Your task to perform on an android device: turn off javascript in the chrome app Image 0: 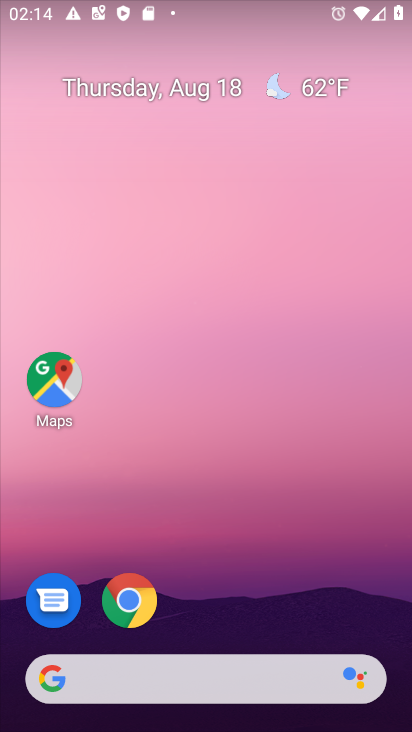
Step 0: press home button
Your task to perform on an android device: turn off javascript in the chrome app Image 1: 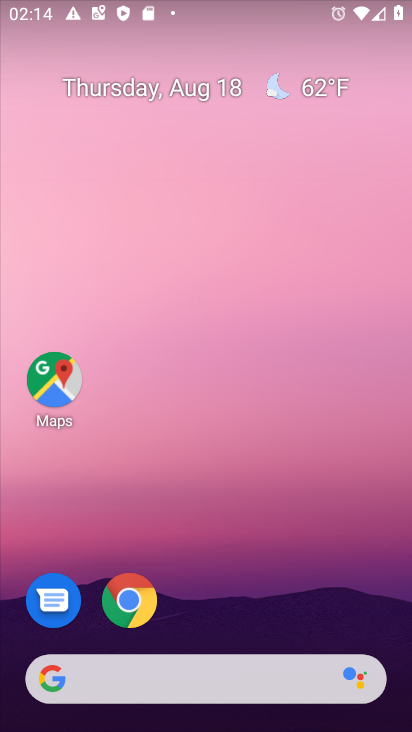
Step 1: click (118, 607)
Your task to perform on an android device: turn off javascript in the chrome app Image 2: 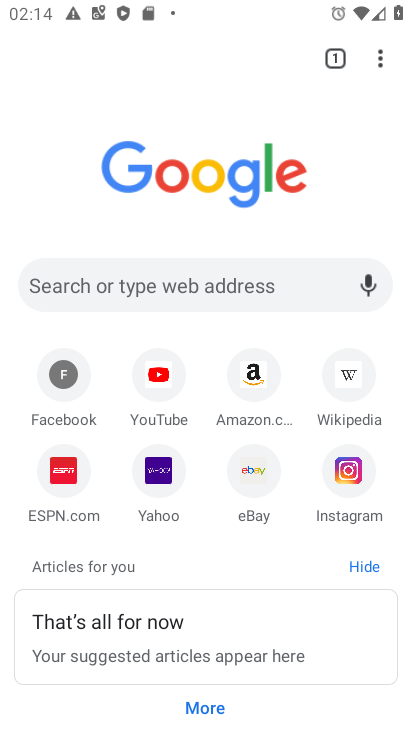
Step 2: drag from (374, 59) to (184, 491)
Your task to perform on an android device: turn off javascript in the chrome app Image 3: 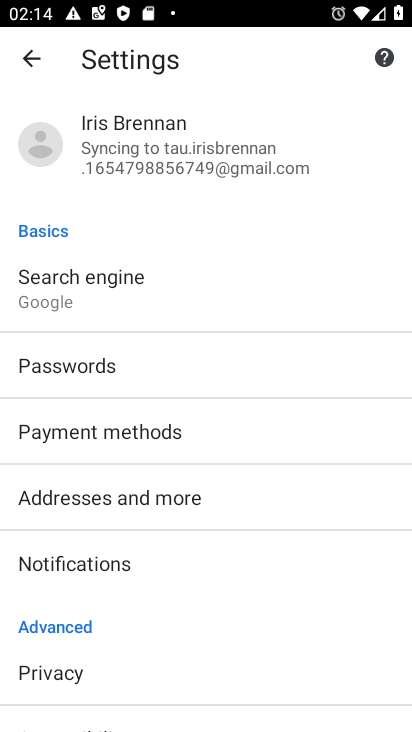
Step 3: drag from (118, 630) to (131, 288)
Your task to perform on an android device: turn off javascript in the chrome app Image 4: 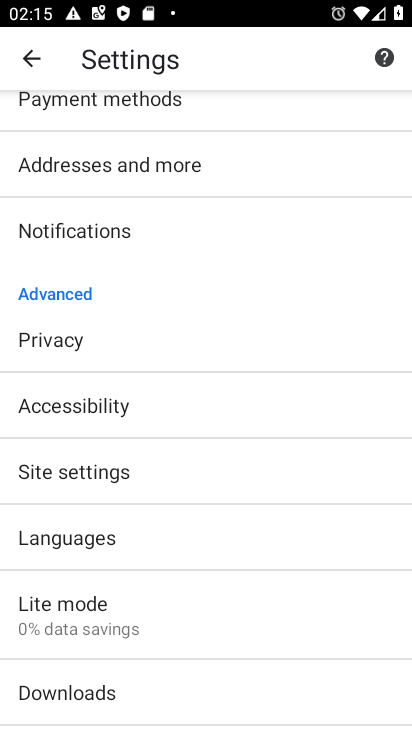
Step 4: click (90, 469)
Your task to perform on an android device: turn off javascript in the chrome app Image 5: 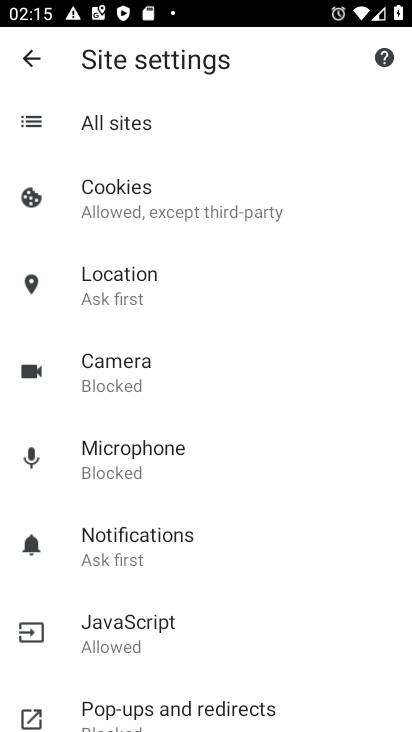
Step 5: click (122, 624)
Your task to perform on an android device: turn off javascript in the chrome app Image 6: 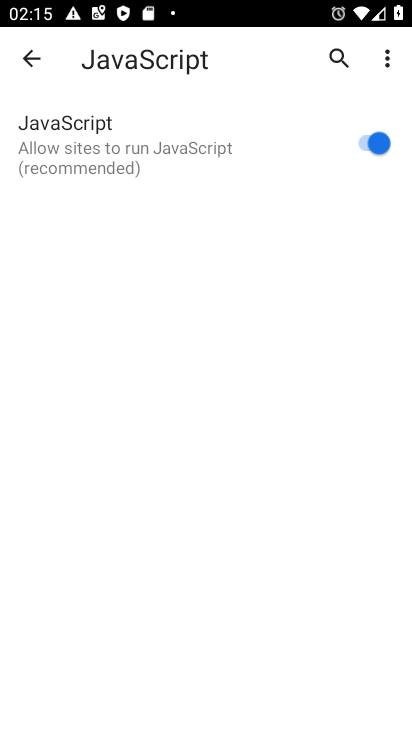
Step 6: click (380, 126)
Your task to perform on an android device: turn off javascript in the chrome app Image 7: 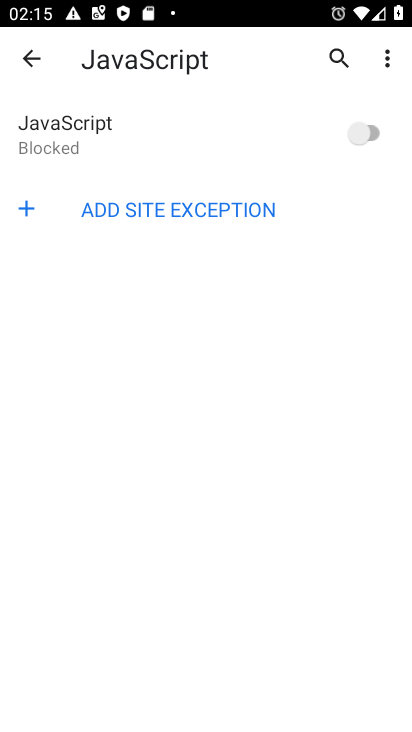
Step 7: task complete